Your task to perform on an android device: open chrome and create a bookmark for the current page Image 0: 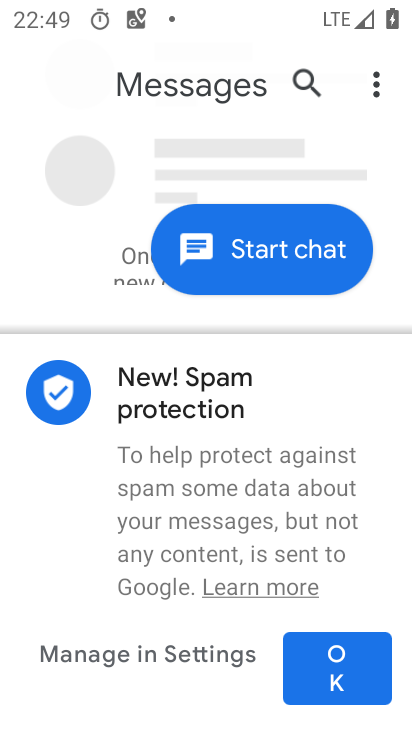
Step 0: press home button
Your task to perform on an android device: open chrome and create a bookmark for the current page Image 1: 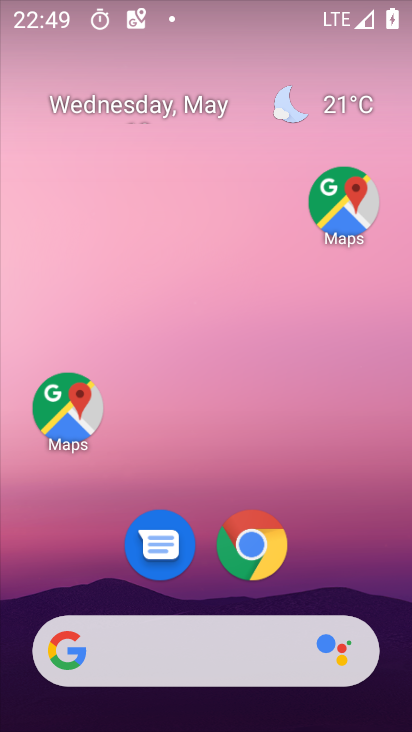
Step 1: click (253, 544)
Your task to perform on an android device: open chrome and create a bookmark for the current page Image 2: 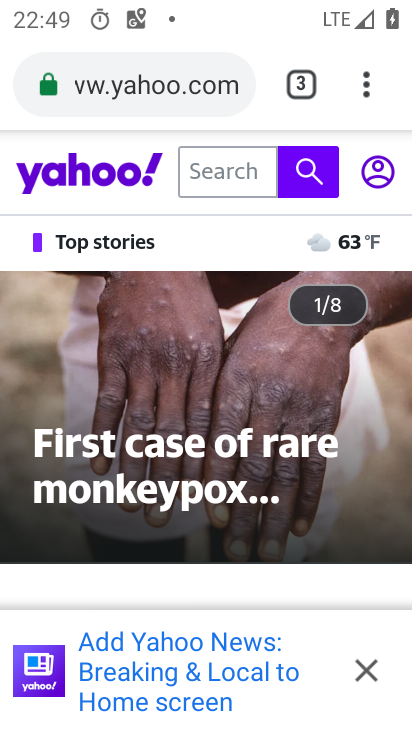
Step 2: click (366, 75)
Your task to perform on an android device: open chrome and create a bookmark for the current page Image 3: 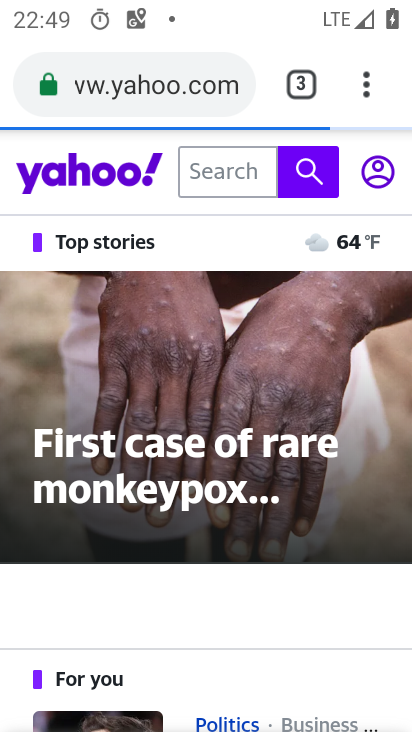
Step 3: click (367, 80)
Your task to perform on an android device: open chrome and create a bookmark for the current page Image 4: 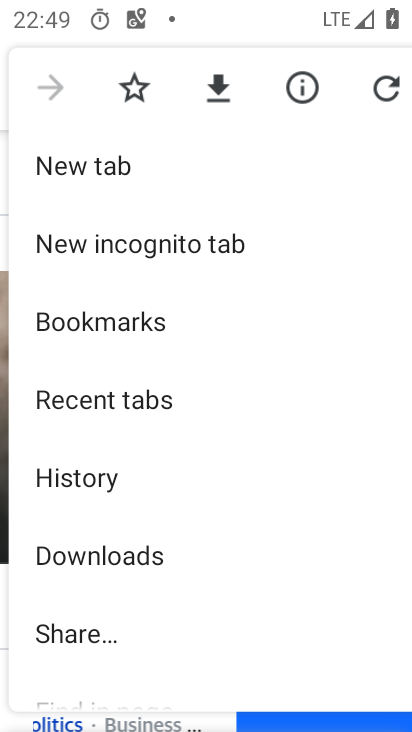
Step 4: click (123, 82)
Your task to perform on an android device: open chrome and create a bookmark for the current page Image 5: 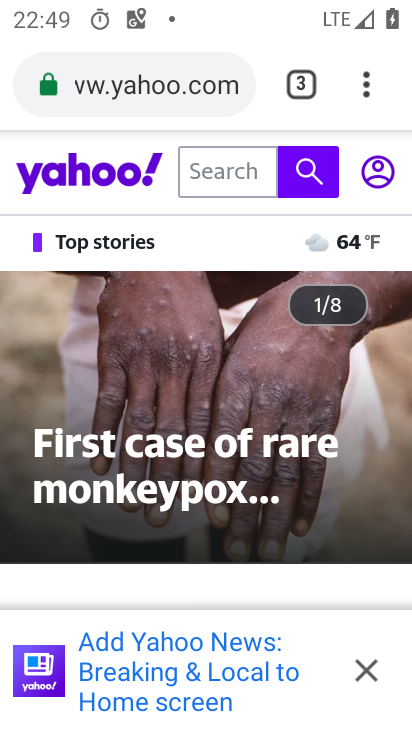
Step 5: task complete